Your task to perform on an android device: turn off wifi Image 0: 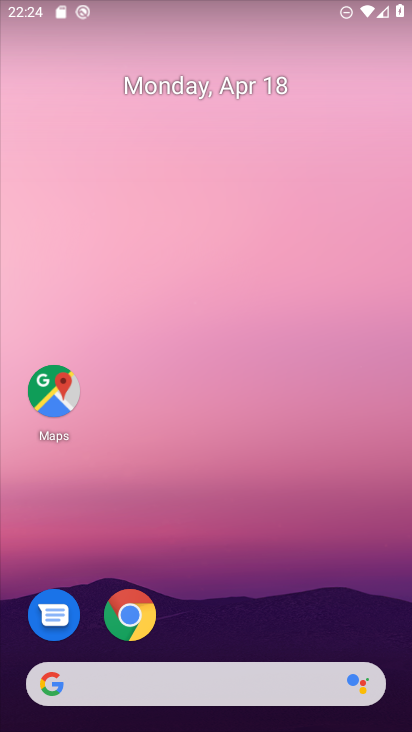
Step 0: drag from (341, 619) to (333, 125)
Your task to perform on an android device: turn off wifi Image 1: 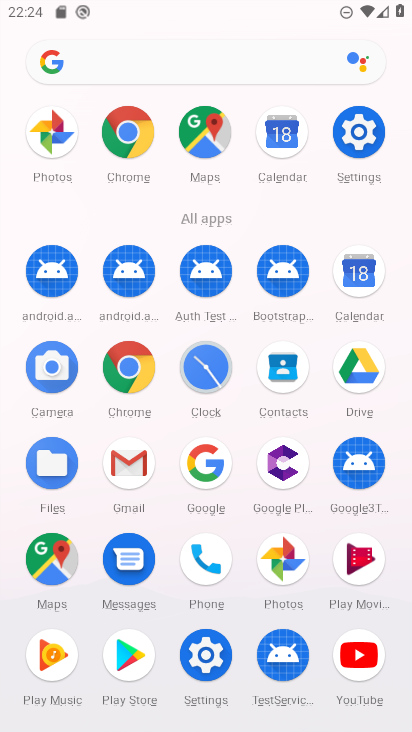
Step 1: click (347, 138)
Your task to perform on an android device: turn off wifi Image 2: 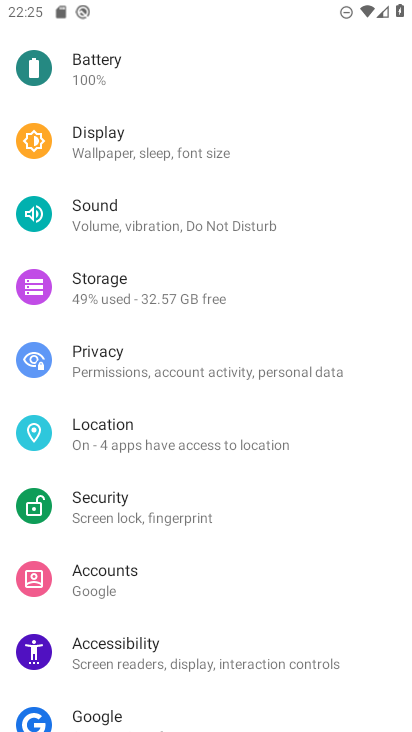
Step 2: drag from (232, 121) to (210, 310)
Your task to perform on an android device: turn off wifi Image 3: 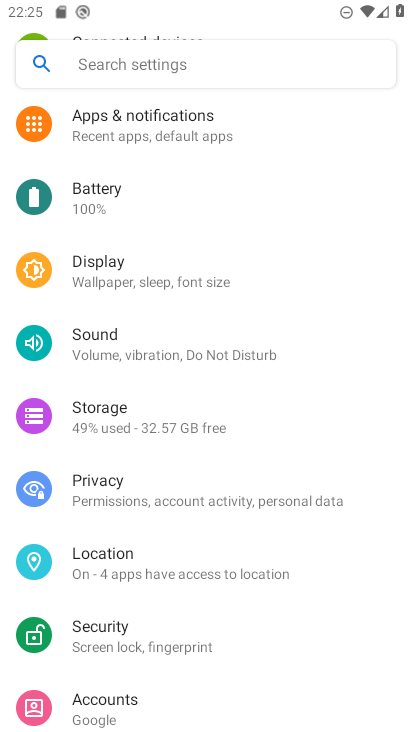
Step 3: drag from (235, 251) to (212, 420)
Your task to perform on an android device: turn off wifi Image 4: 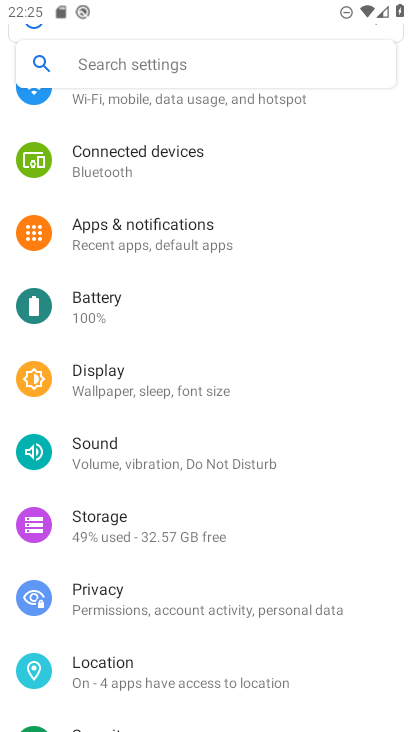
Step 4: click (155, 104)
Your task to perform on an android device: turn off wifi Image 5: 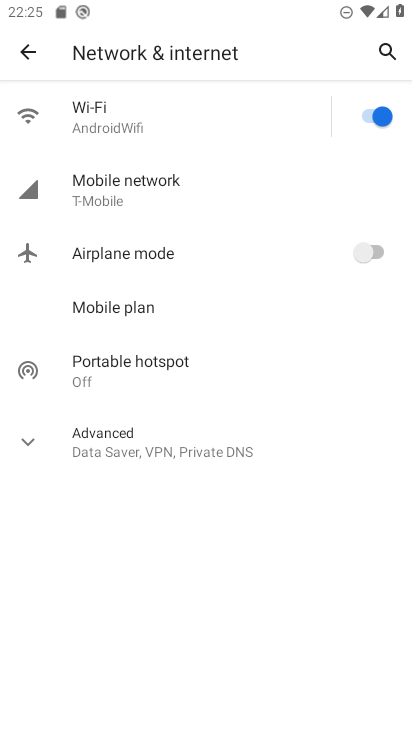
Step 5: click (382, 115)
Your task to perform on an android device: turn off wifi Image 6: 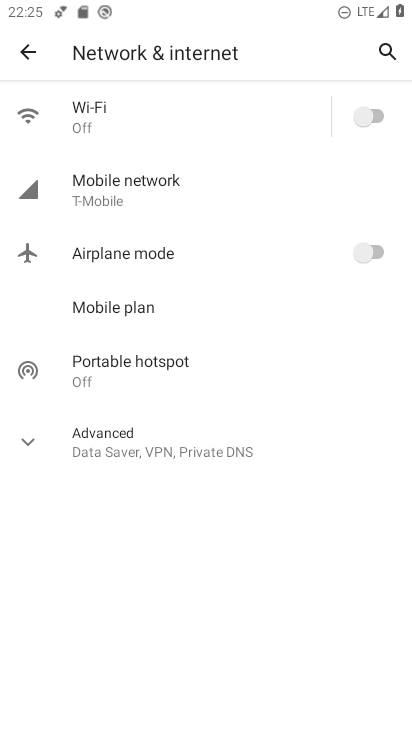
Step 6: task complete